Your task to perform on an android device: check storage Image 0: 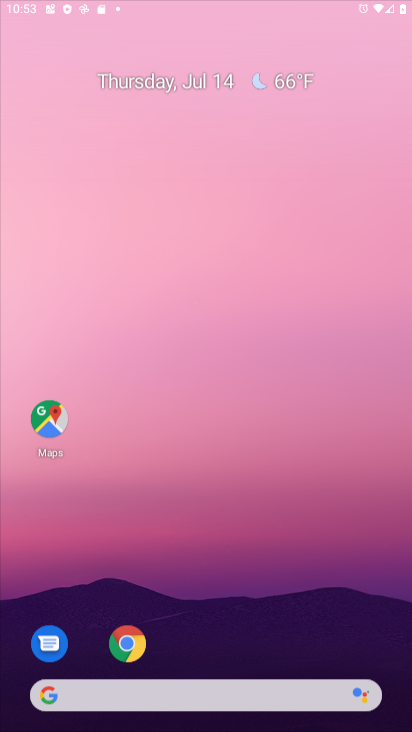
Step 0: click (195, 682)
Your task to perform on an android device: check storage Image 1: 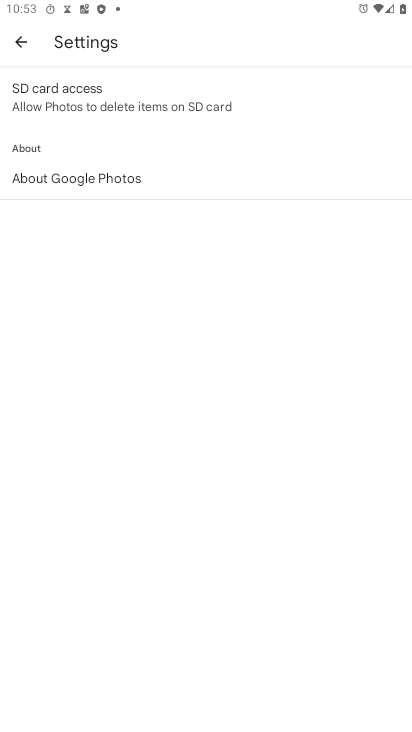
Step 1: press back button
Your task to perform on an android device: check storage Image 2: 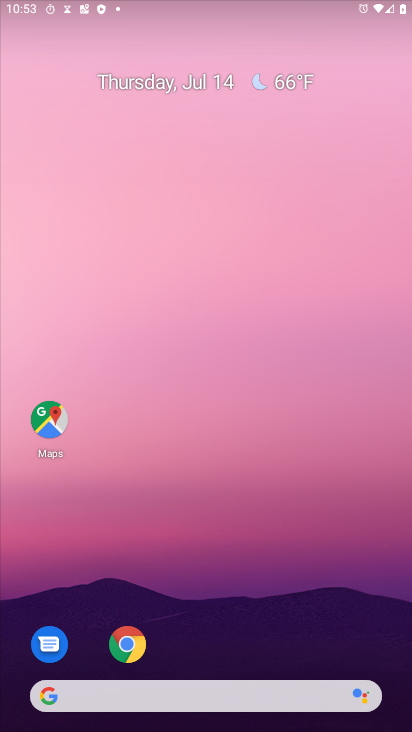
Step 2: drag from (307, 690) to (213, 197)
Your task to perform on an android device: check storage Image 3: 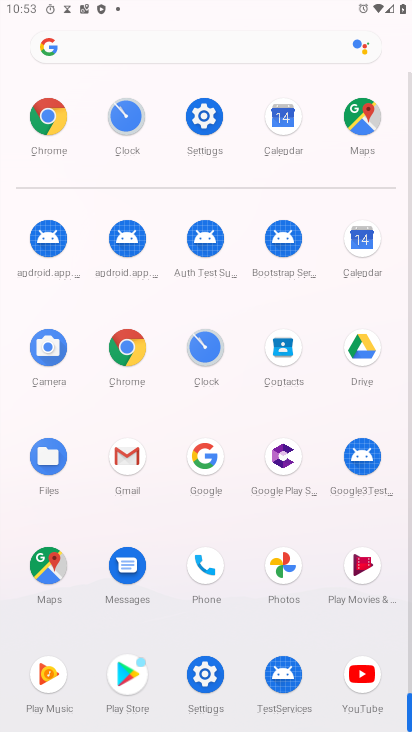
Step 3: click (205, 111)
Your task to perform on an android device: check storage Image 4: 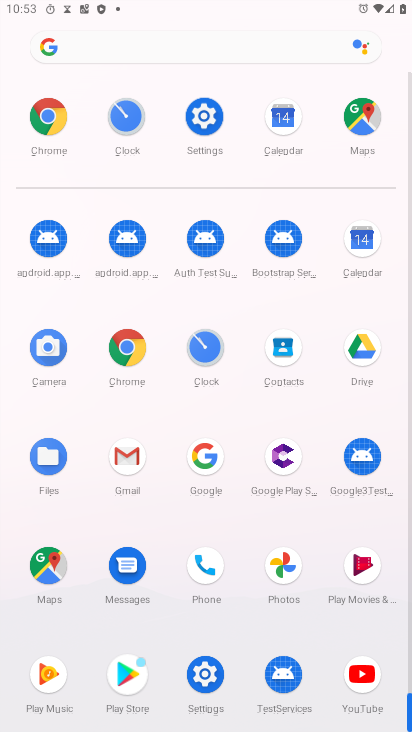
Step 4: click (206, 111)
Your task to perform on an android device: check storage Image 5: 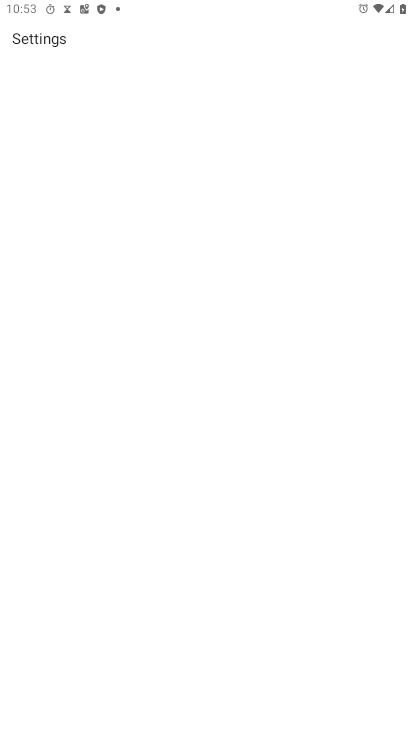
Step 5: click (206, 111)
Your task to perform on an android device: check storage Image 6: 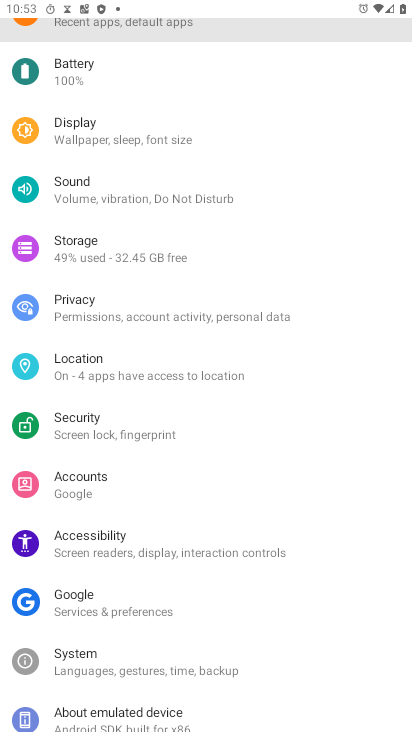
Step 6: click (70, 256)
Your task to perform on an android device: check storage Image 7: 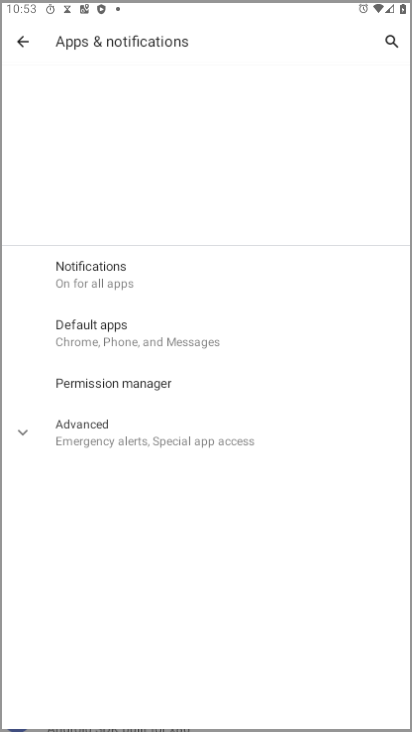
Step 7: click (71, 255)
Your task to perform on an android device: check storage Image 8: 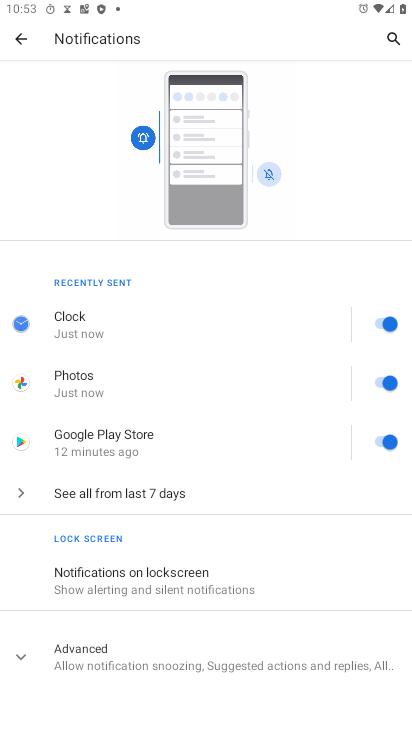
Step 8: click (27, 38)
Your task to perform on an android device: check storage Image 9: 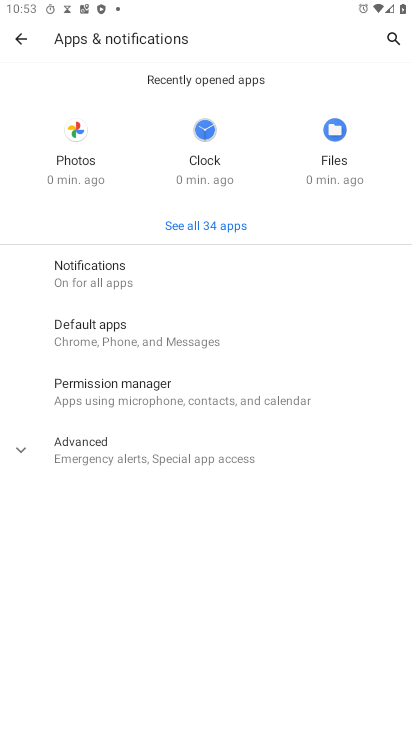
Step 9: click (22, 43)
Your task to perform on an android device: check storage Image 10: 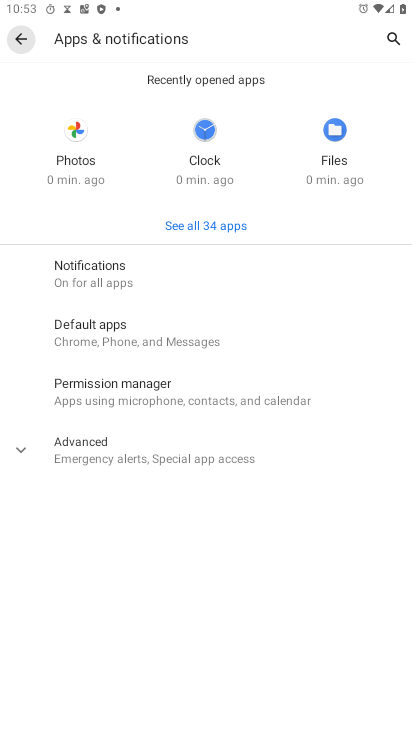
Step 10: click (22, 45)
Your task to perform on an android device: check storage Image 11: 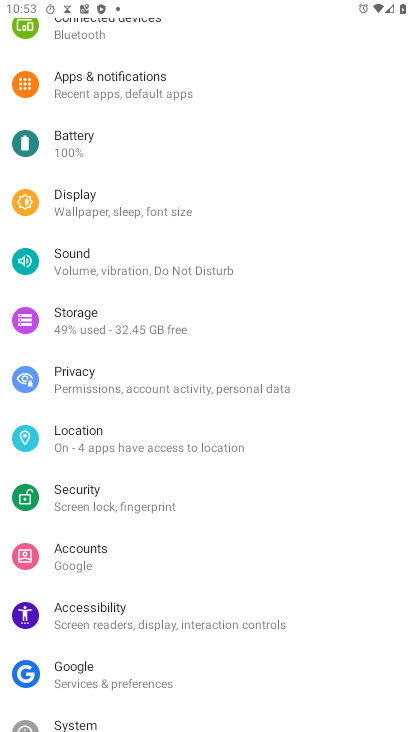
Step 11: click (78, 322)
Your task to perform on an android device: check storage Image 12: 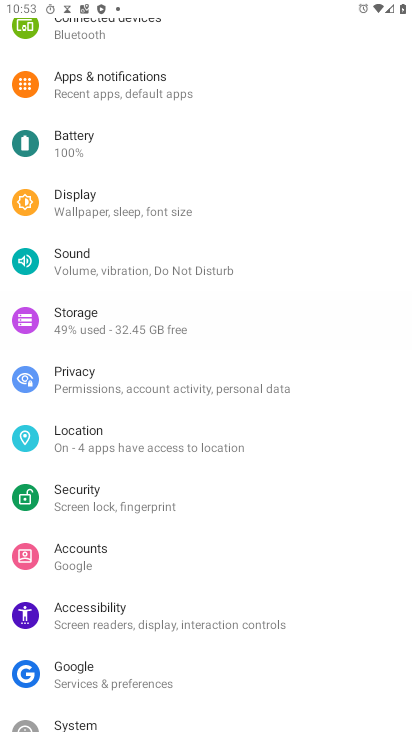
Step 12: click (78, 322)
Your task to perform on an android device: check storage Image 13: 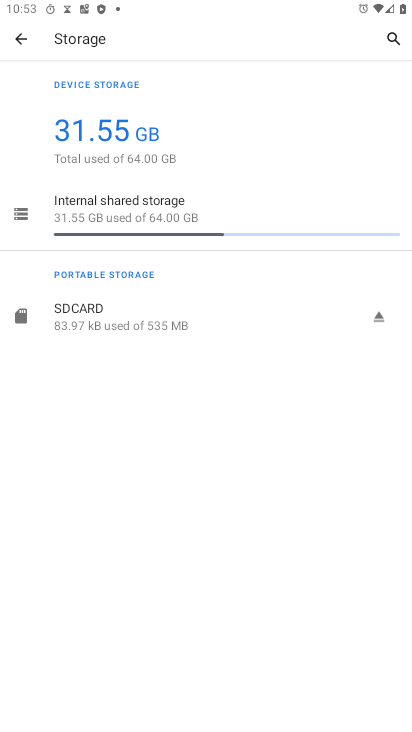
Step 13: click (76, 324)
Your task to perform on an android device: check storage Image 14: 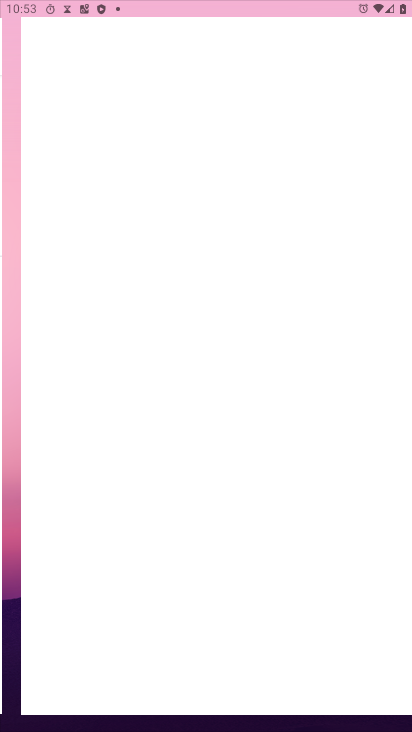
Step 14: click (76, 322)
Your task to perform on an android device: check storage Image 15: 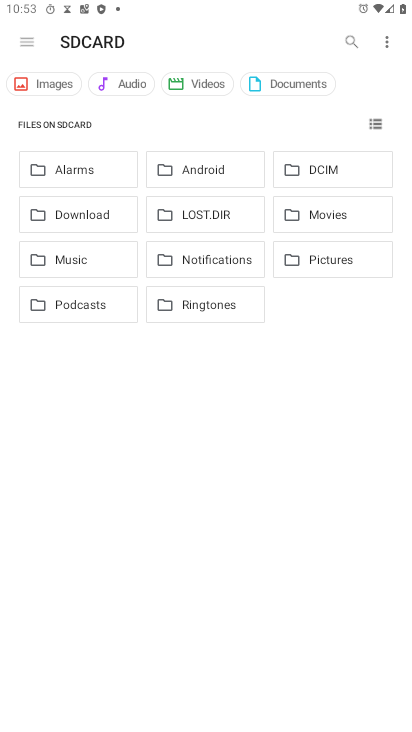
Step 15: task complete